Your task to perform on an android device: empty trash in the gmail app Image 0: 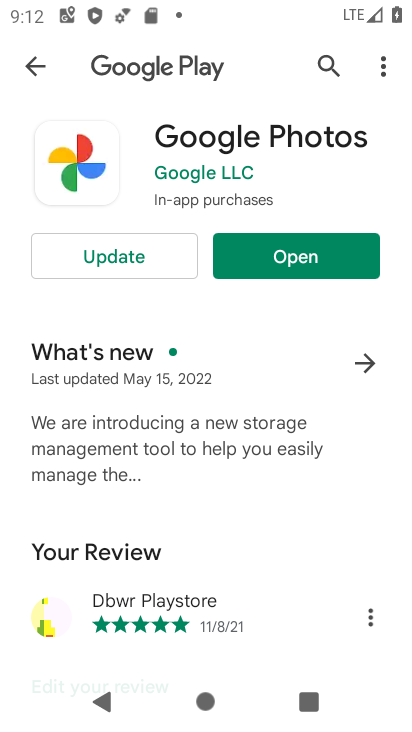
Step 0: press home button
Your task to perform on an android device: empty trash in the gmail app Image 1: 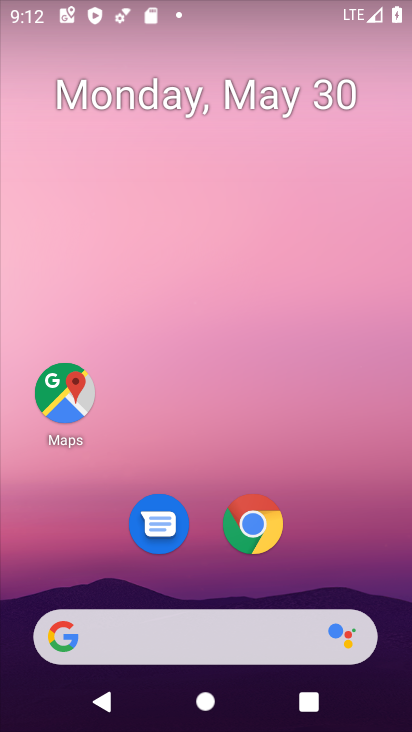
Step 1: drag from (321, 519) to (318, 14)
Your task to perform on an android device: empty trash in the gmail app Image 2: 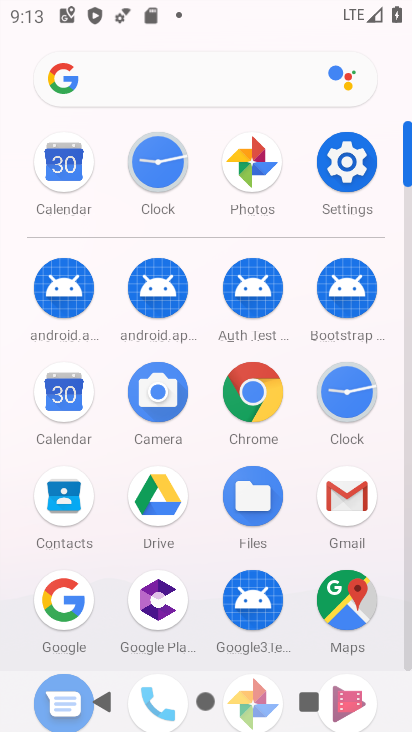
Step 2: drag from (211, 434) to (207, 132)
Your task to perform on an android device: empty trash in the gmail app Image 3: 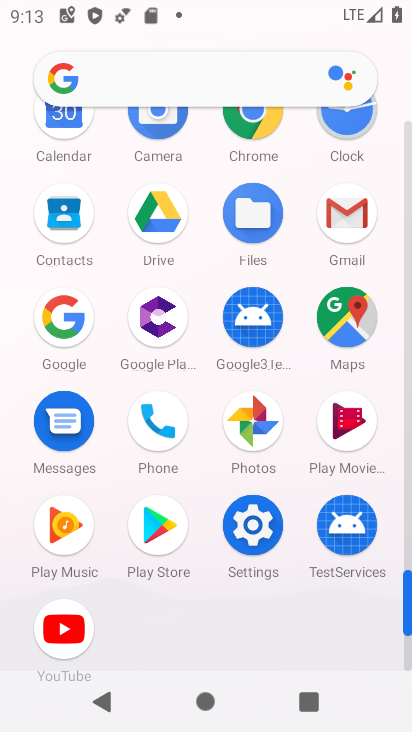
Step 3: click (327, 211)
Your task to perform on an android device: empty trash in the gmail app Image 4: 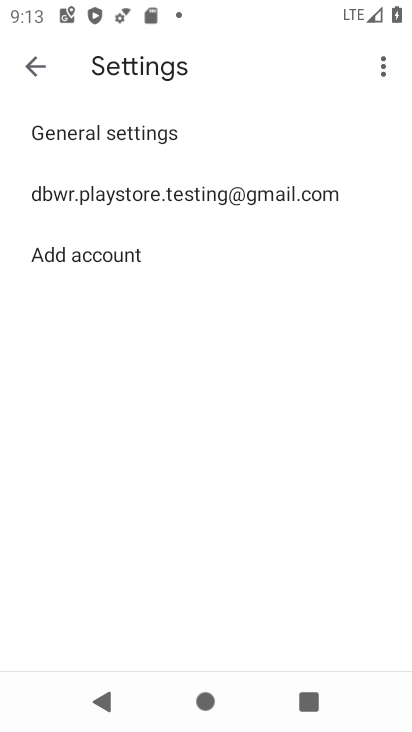
Step 4: click (38, 65)
Your task to perform on an android device: empty trash in the gmail app Image 5: 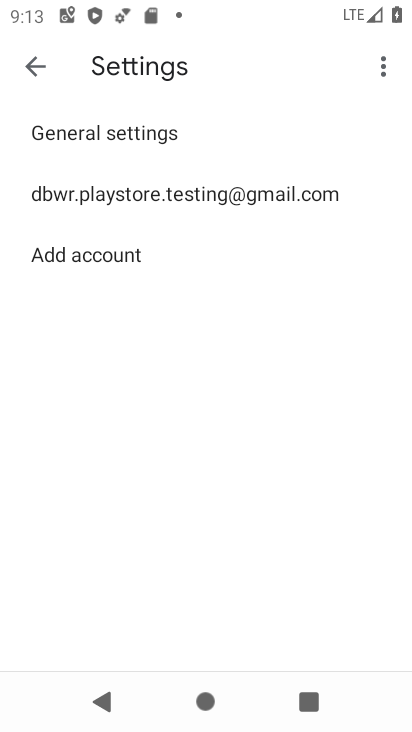
Step 5: click (41, 67)
Your task to perform on an android device: empty trash in the gmail app Image 6: 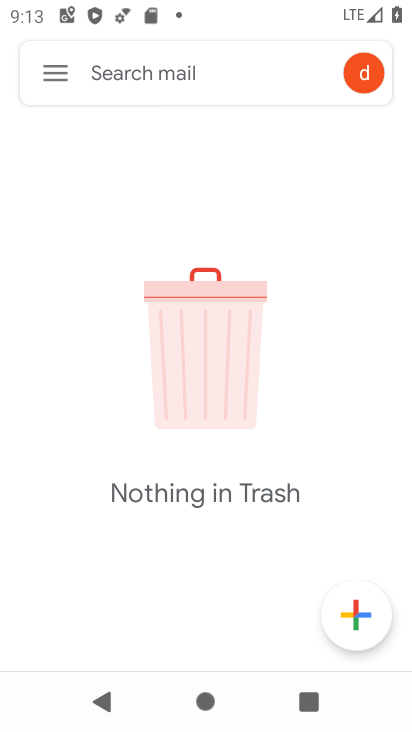
Step 6: task complete